Your task to perform on an android device: change notifications settings Image 0: 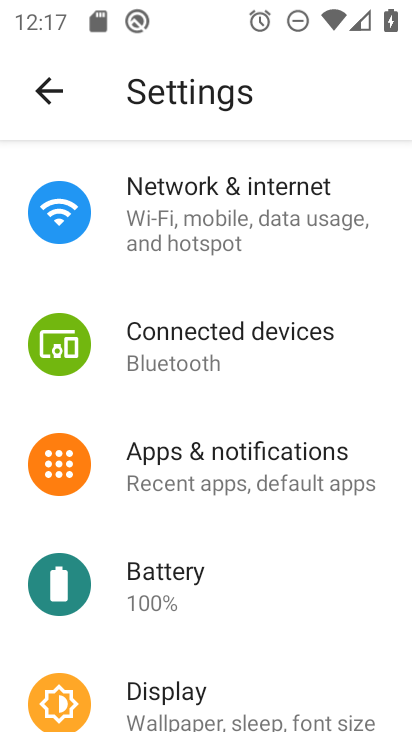
Step 0: click (241, 462)
Your task to perform on an android device: change notifications settings Image 1: 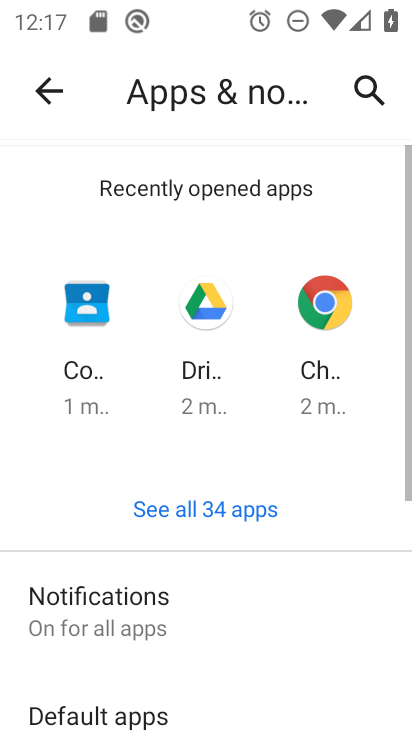
Step 1: drag from (135, 638) to (267, 13)
Your task to perform on an android device: change notifications settings Image 2: 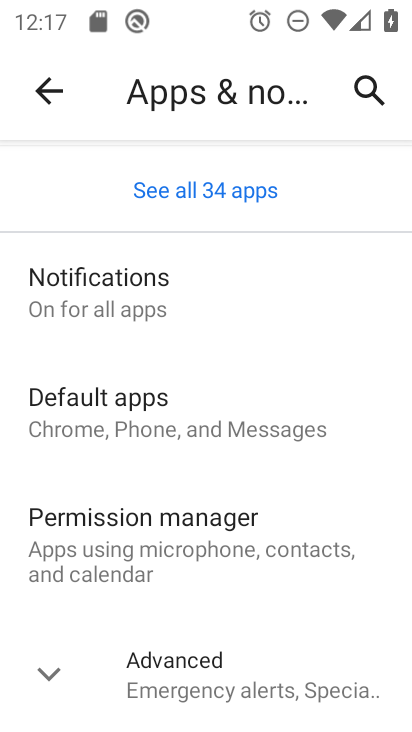
Step 2: click (149, 690)
Your task to perform on an android device: change notifications settings Image 3: 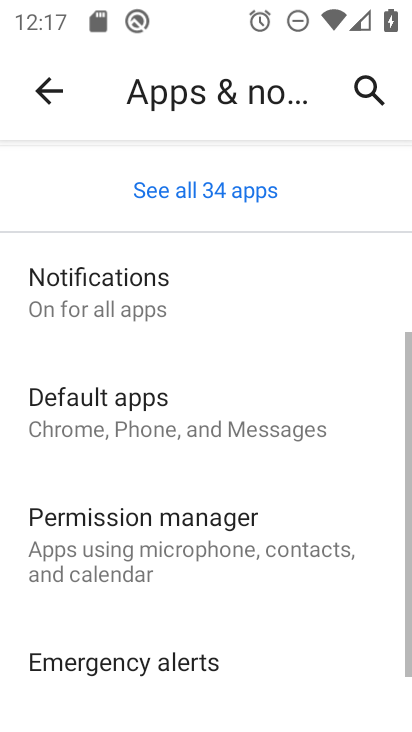
Step 3: drag from (149, 690) to (208, 316)
Your task to perform on an android device: change notifications settings Image 4: 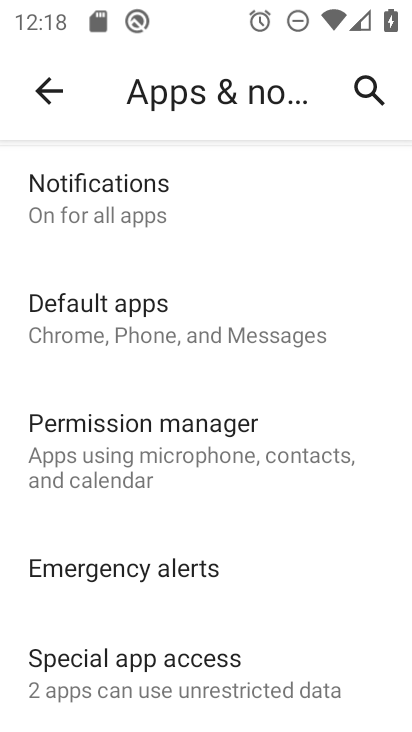
Step 4: drag from (111, 671) to (228, 220)
Your task to perform on an android device: change notifications settings Image 5: 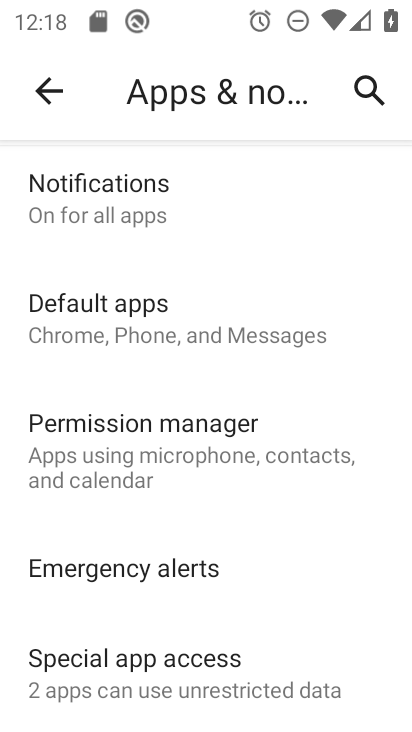
Step 5: click (179, 218)
Your task to perform on an android device: change notifications settings Image 6: 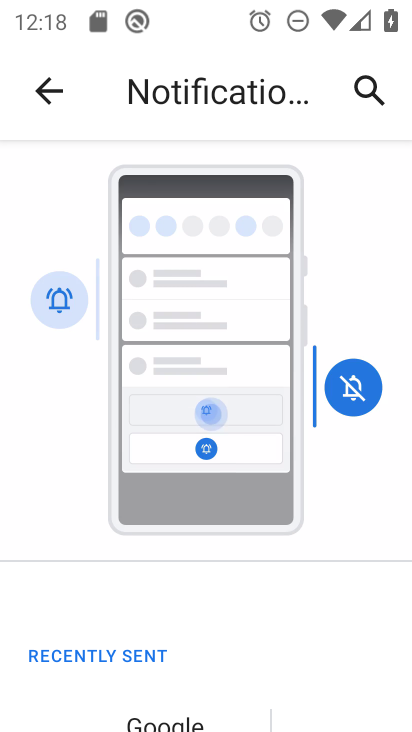
Step 6: drag from (163, 559) to (280, 86)
Your task to perform on an android device: change notifications settings Image 7: 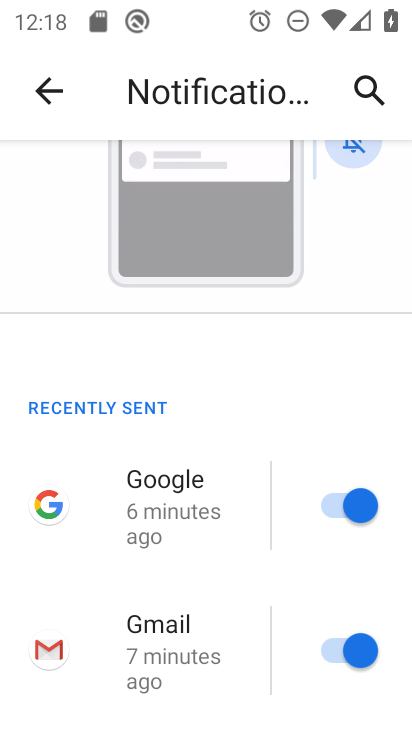
Step 7: drag from (105, 608) to (142, 269)
Your task to perform on an android device: change notifications settings Image 8: 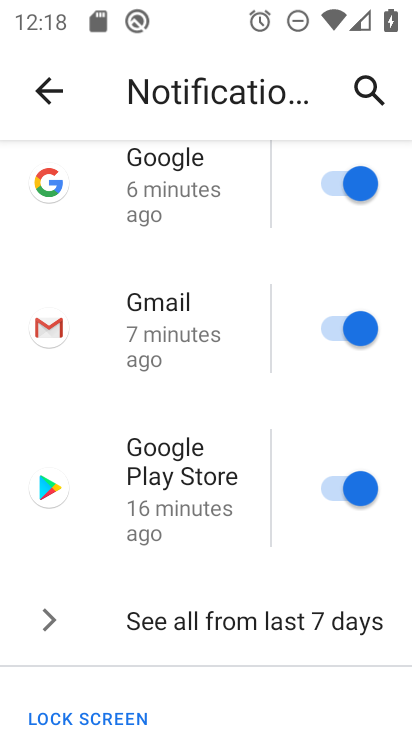
Step 8: drag from (152, 670) to (209, 308)
Your task to perform on an android device: change notifications settings Image 9: 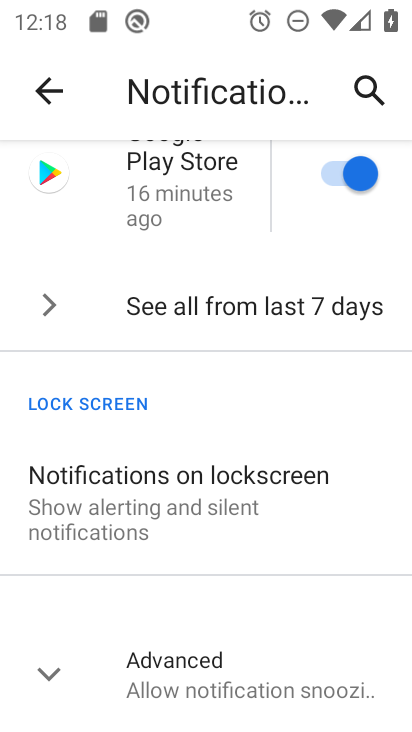
Step 9: click (138, 689)
Your task to perform on an android device: change notifications settings Image 10: 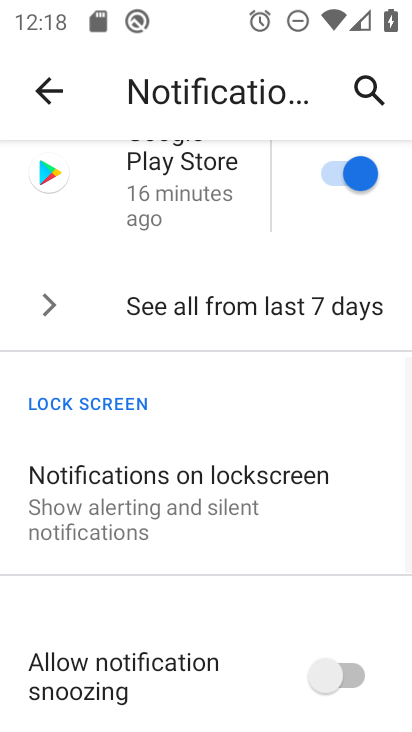
Step 10: click (342, 669)
Your task to perform on an android device: change notifications settings Image 11: 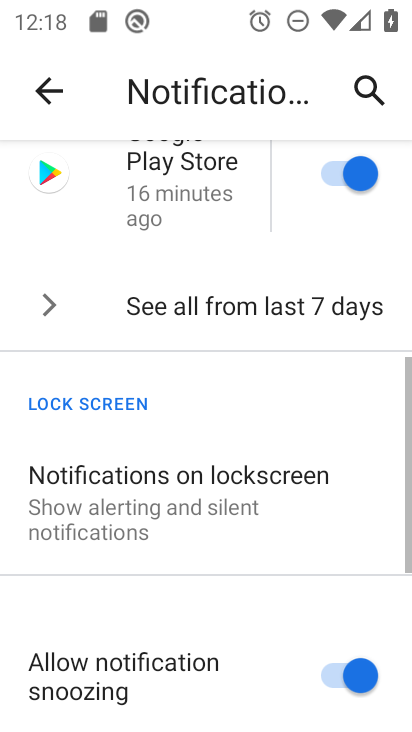
Step 11: drag from (72, 645) to (146, 221)
Your task to perform on an android device: change notifications settings Image 12: 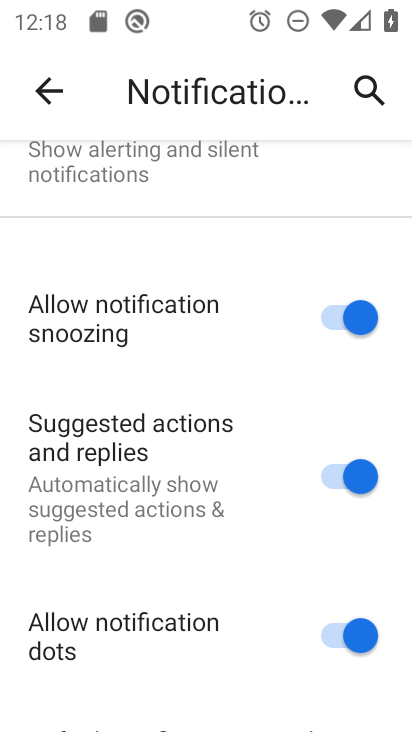
Step 12: click (337, 481)
Your task to perform on an android device: change notifications settings Image 13: 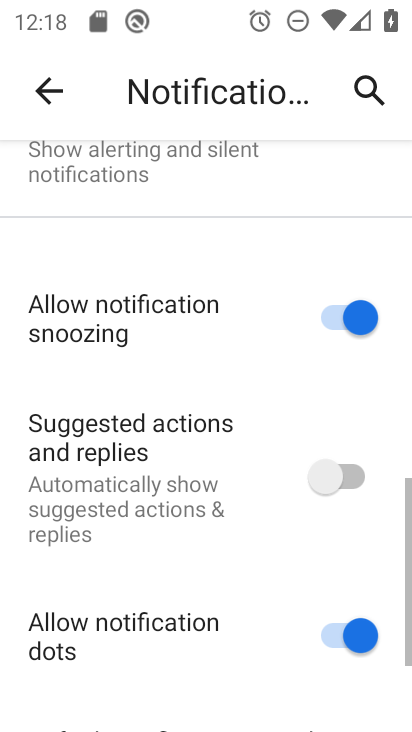
Step 13: click (344, 636)
Your task to perform on an android device: change notifications settings Image 14: 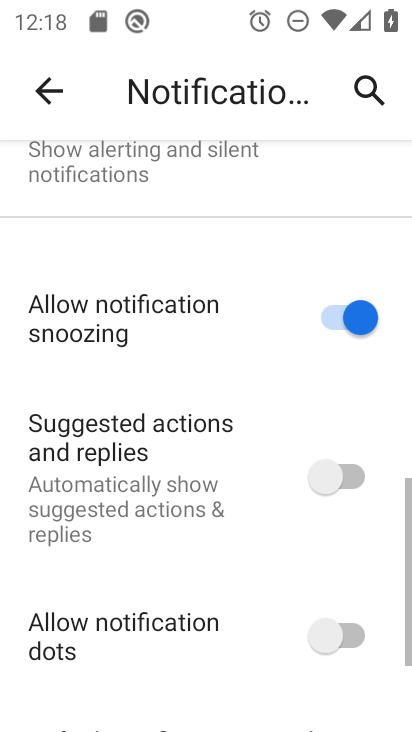
Step 14: task complete